Your task to perform on an android device: clear history in the chrome app Image 0: 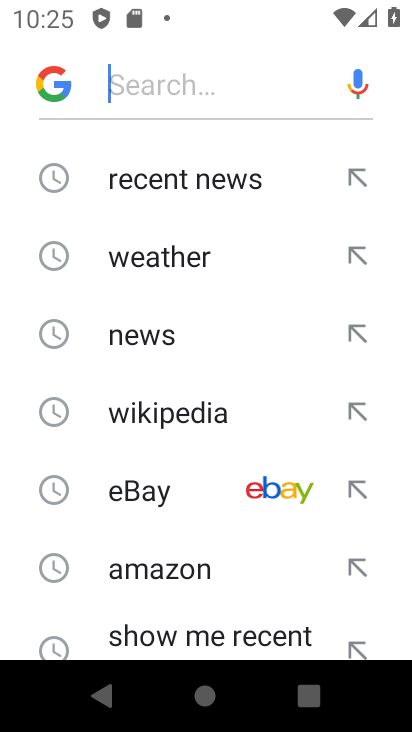
Step 0: press home button
Your task to perform on an android device: clear history in the chrome app Image 1: 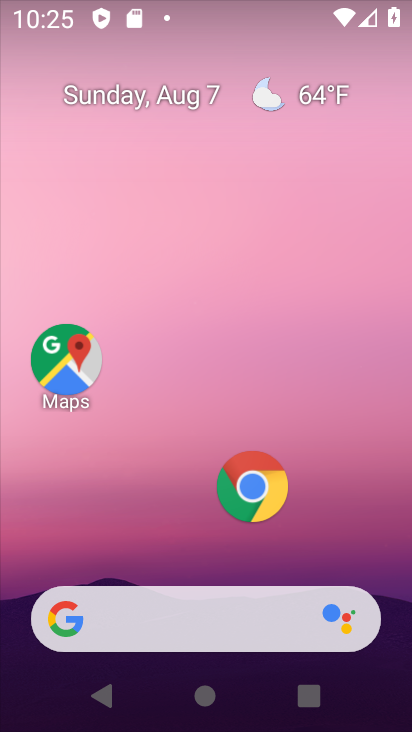
Step 1: click (265, 473)
Your task to perform on an android device: clear history in the chrome app Image 2: 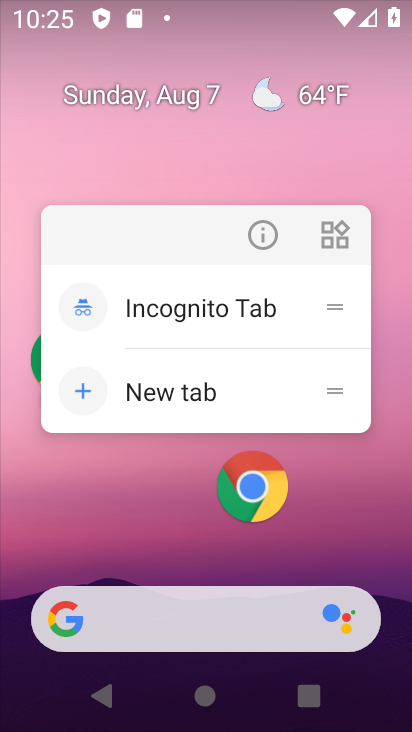
Step 2: click (265, 473)
Your task to perform on an android device: clear history in the chrome app Image 3: 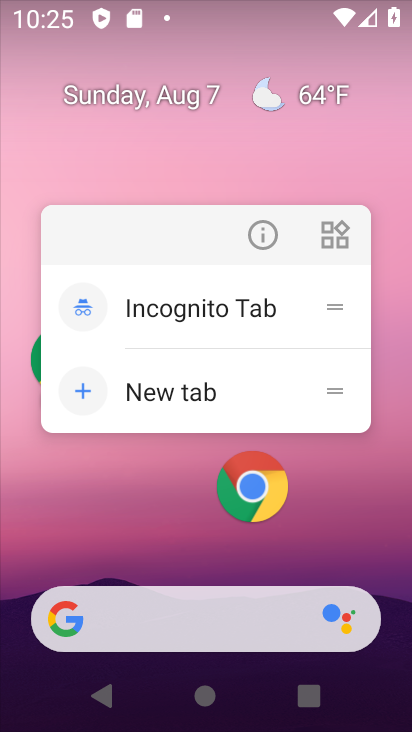
Step 3: click (265, 473)
Your task to perform on an android device: clear history in the chrome app Image 4: 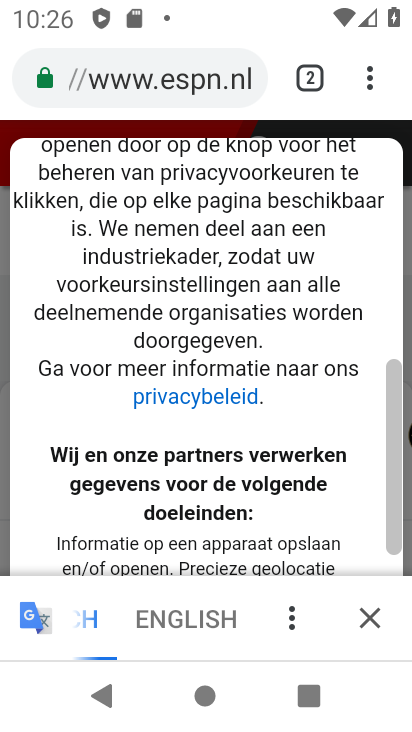
Step 4: click (370, 71)
Your task to perform on an android device: clear history in the chrome app Image 5: 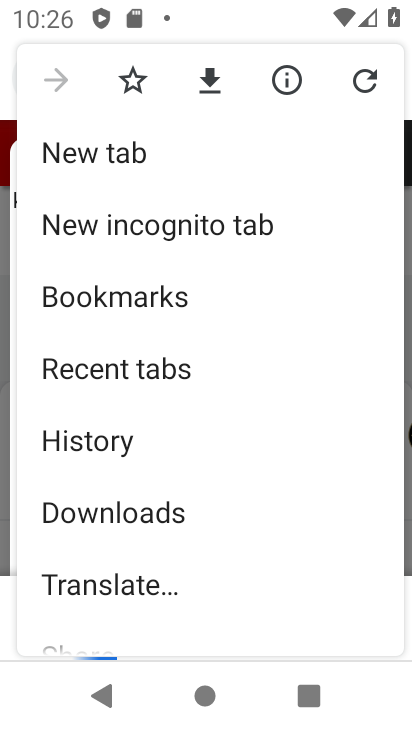
Step 5: click (112, 440)
Your task to perform on an android device: clear history in the chrome app Image 6: 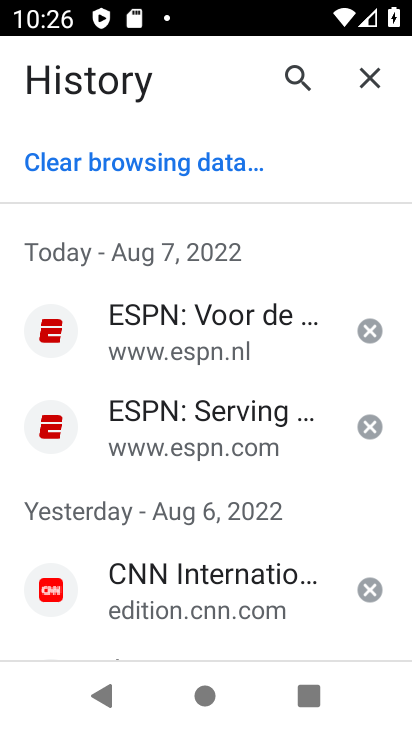
Step 6: click (198, 168)
Your task to perform on an android device: clear history in the chrome app Image 7: 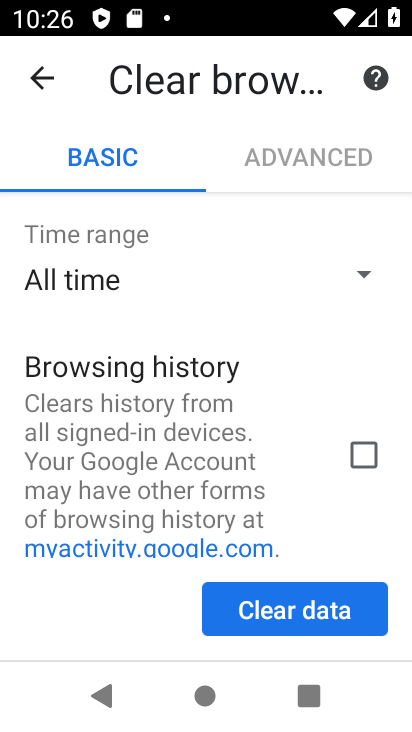
Step 7: click (315, 605)
Your task to perform on an android device: clear history in the chrome app Image 8: 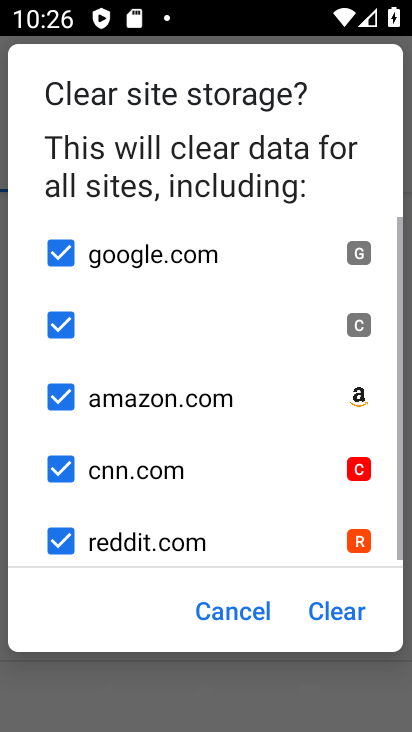
Step 8: click (328, 613)
Your task to perform on an android device: clear history in the chrome app Image 9: 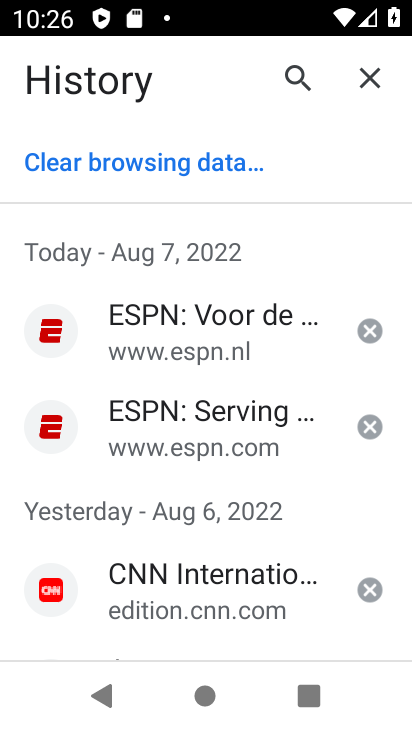
Step 9: task complete